Your task to perform on an android device: toggle pop-ups in chrome Image 0: 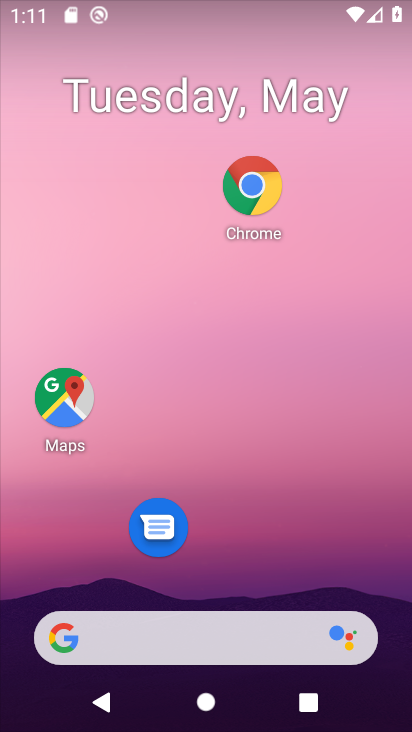
Step 0: click (250, 178)
Your task to perform on an android device: toggle pop-ups in chrome Image 1: 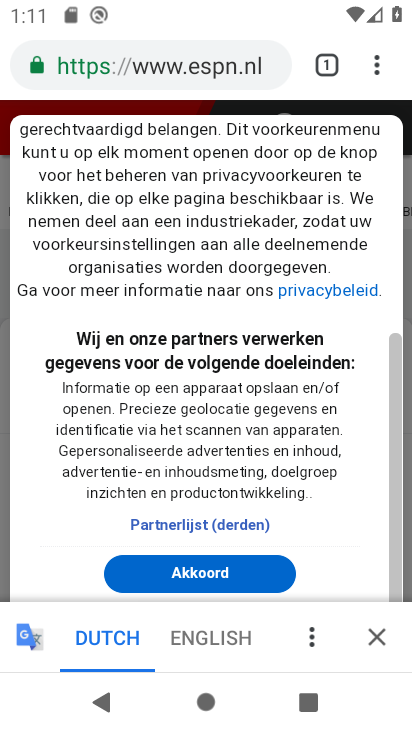
Step 1: click (376, 63)
Your task to perform on an android device: toggle pop-ups in chrome Image 2: 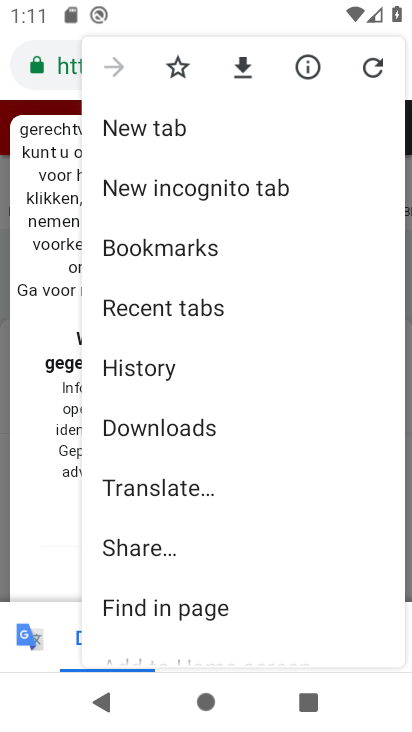
Step 2: drag from (281, 544) to (219, 168)
Your task to perform on an android device: toggle pop-ups in chrome Image 3: 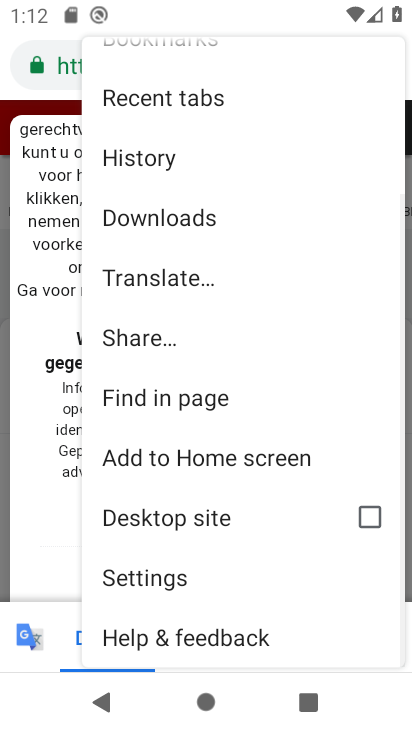
Step 3: click (165, 578)
Your task to perform on an android device: toggle pop-ups in chrome Image 4: 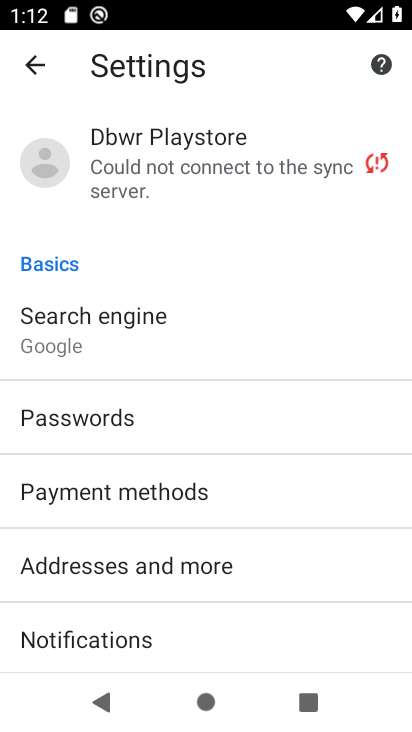
Step 4: drag from (270, 551) to (228, 167)
Your task to perform on an android device: toggle pop-ups in chrome Image 5: 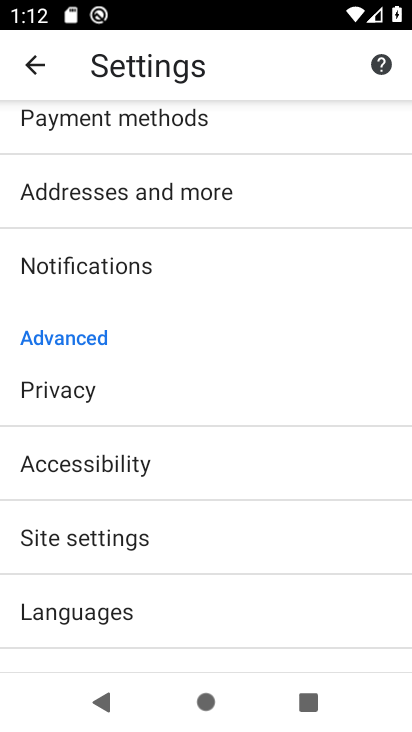
Step 5: click (102, 530)
Your task to perform on an android device: toggle pop-ups in chrome Image 6: 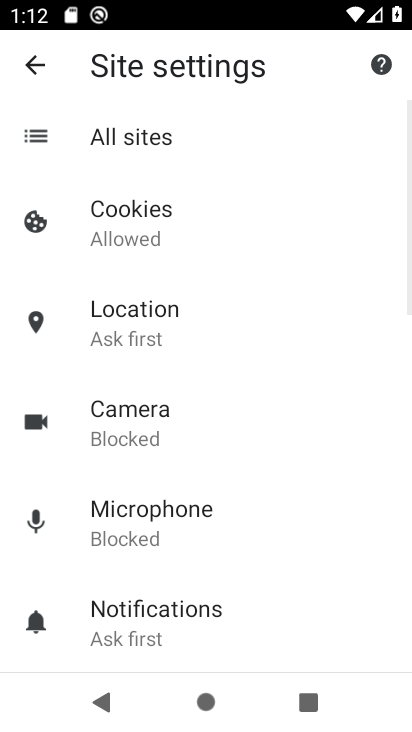
Step 6: drag from (285, 460) to (253, 15)
Your task to perform on an android device: toggle pop-ups in chrome Image 7: 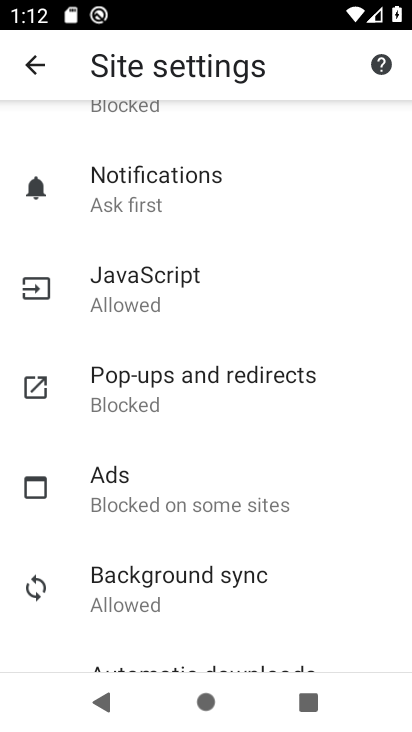
Step 7: click (151, 365)
Your task to perform on an android device: toggle pop-ups in chrome Image 8: 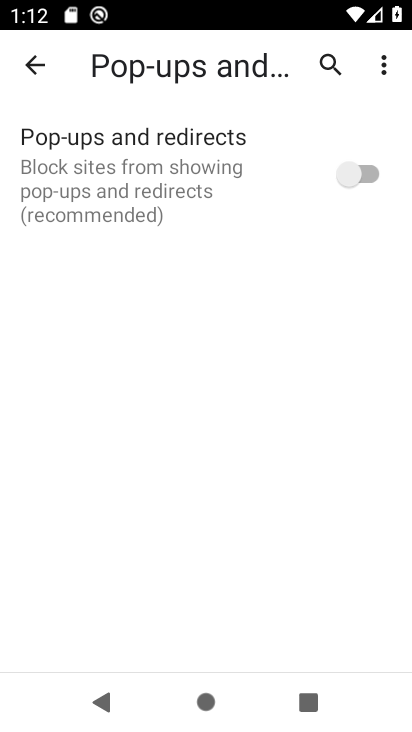
Step 8: click (346, 166)
Your task to perform on an android device: toggle pop-ups in chrome Image 9: 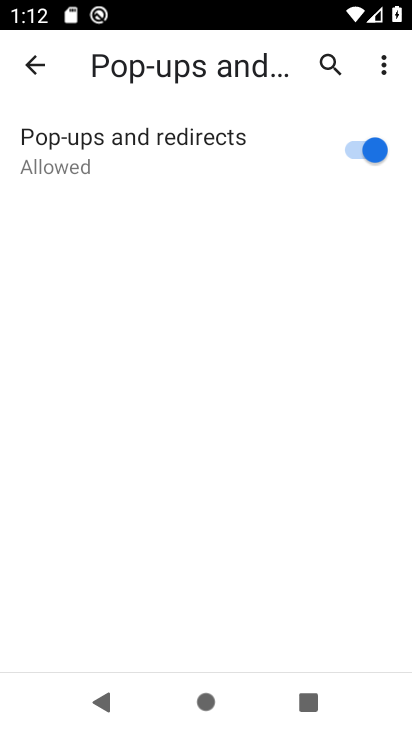
Step 9: task complete